Your task to perform on an android device: create a new album in the google photos Image 0: 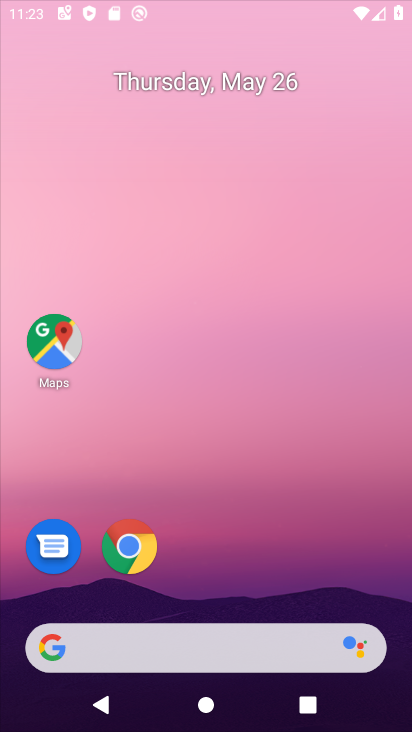
Step 0: drag from (218, 500) to (196, 7)
Your task to perform on an android device: create a new album in the google photos Image 1: 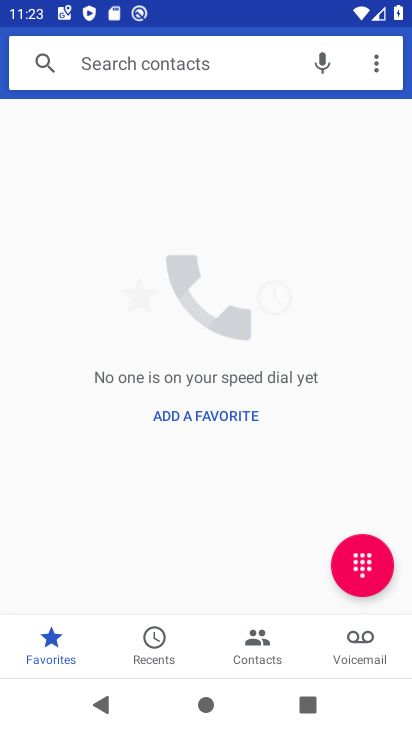
Step 1: press home button
Your task to perform on an android device: create a new album in the google photos Image 2: 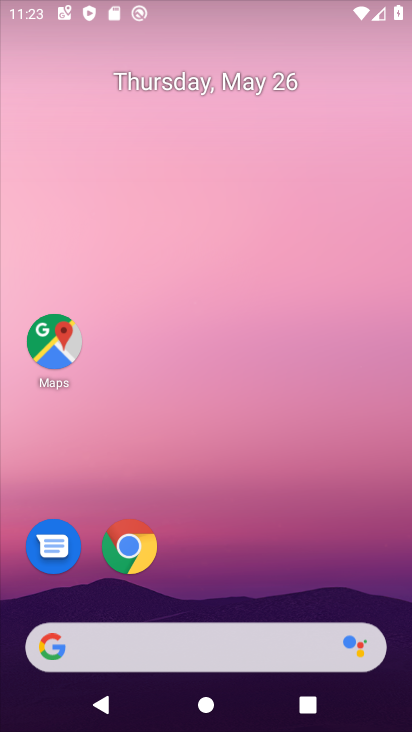
Step 2: press home button
Your task to perform on an android device: create a new album in the google photos Image 3: 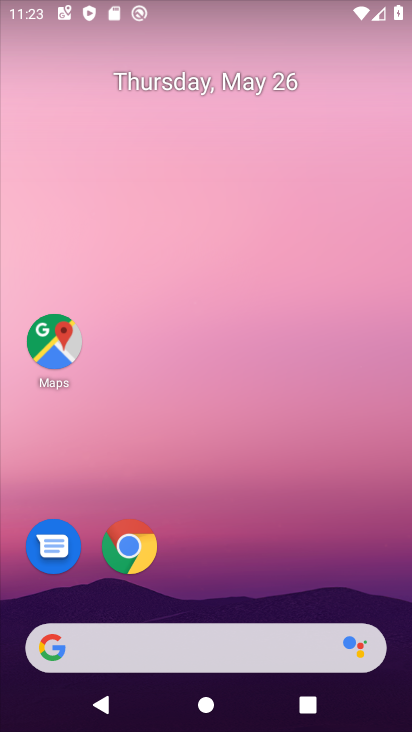
Step 3: drag from (250, 534) to (246, 167)
Your task to perform on an android device: create a new album in the google photos Image 4: 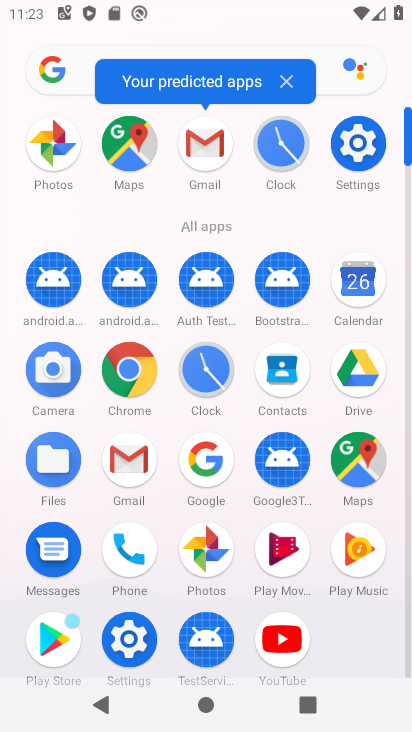
Step 4: click (49, 149)
Your task to perform on an android device: create a new album in the google photos Image 5: 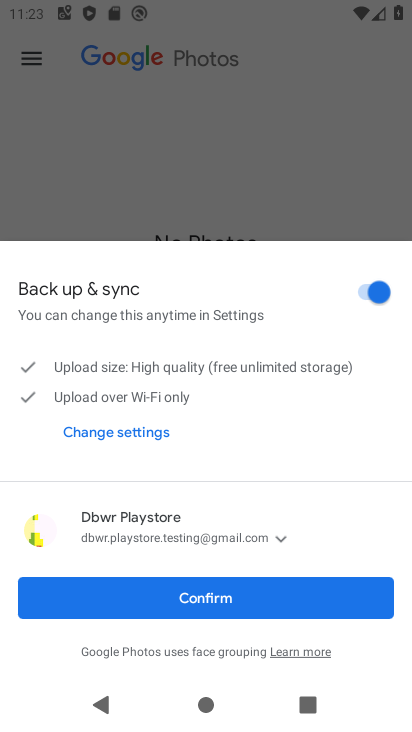
Step 5: click (179, 600)
Your task to perform on an android device: create a new album in the google photos Image 6: 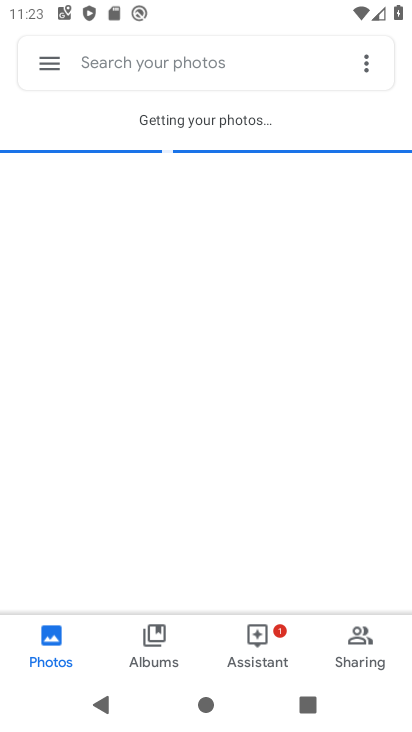
Step 6: click (366, 66)
Your task to perform on an android device: create a new album in the google photos Image 7: 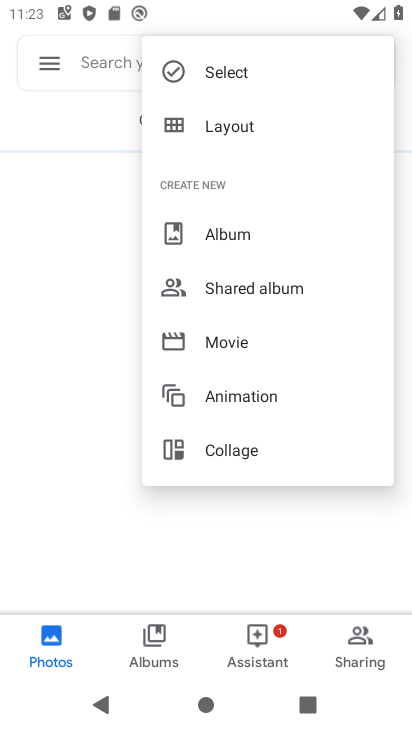
Step 7: click (239, 236)
Your task to perform on an android device: create a new album in the google photos Image 8: 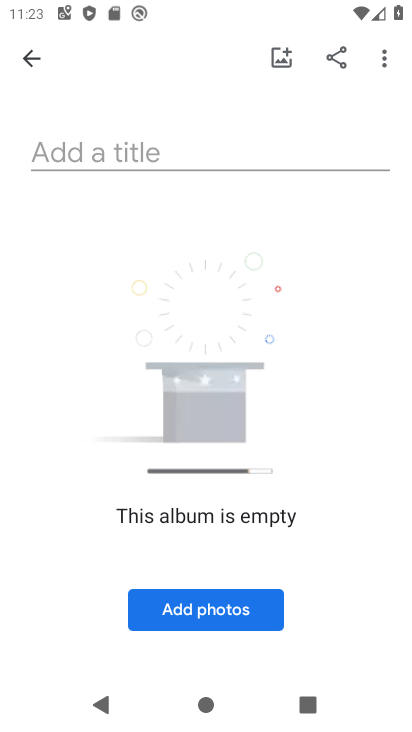
Step 8: click (91, 140)
Your task to perform on an android device: create a new album in the google photos Image 9: 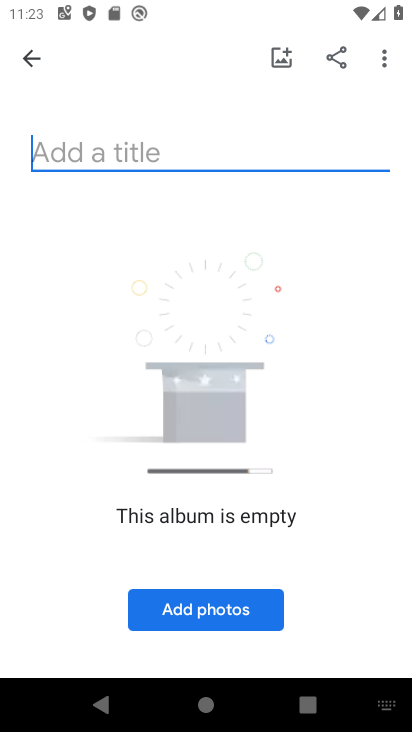
Step 9: type "uyjthgrfdsd"
Your task to perform on an android device: create a new album in the google photos Image 10: 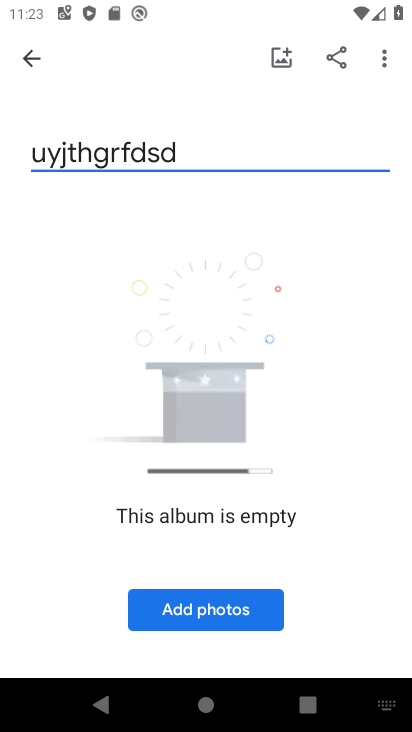
Step 10: click (35, 58)
Your task to perform on an android device: create a new album in the google photos Image 11: 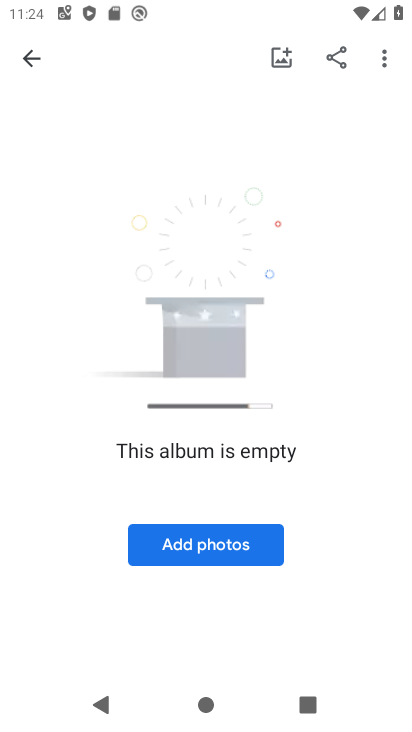
Step 11: task complete